Your task to perform on an android device: Open calendar and show me the third week of next month Image 0: 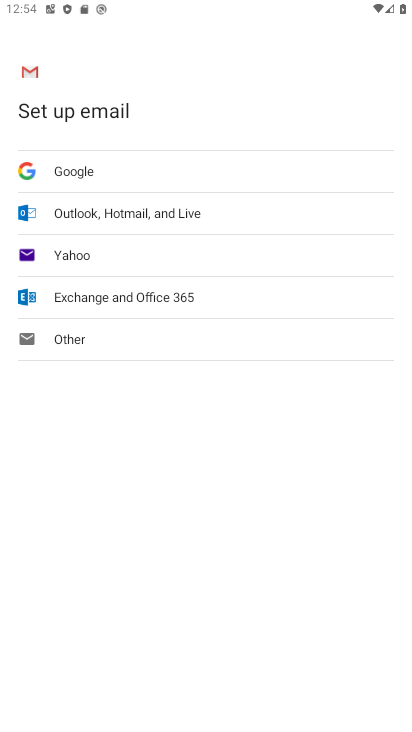
Step 0: press home button
Your task to perform on an android device: Open calendar and show me the third week of next month Image 1: 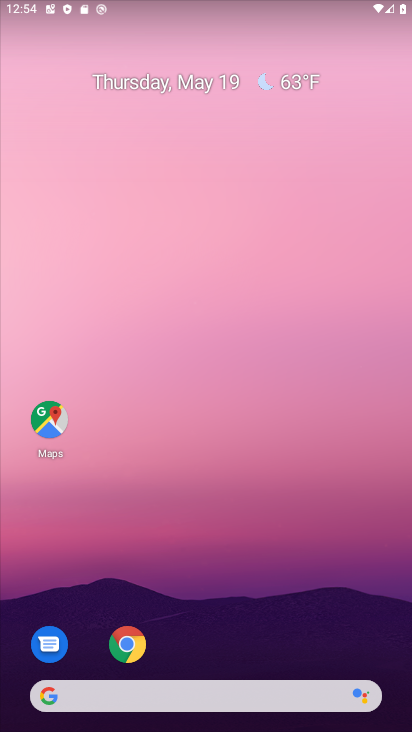
Step 1: drag from (379, 560) to (363, 110)
Your task to perform on an android device: Open calendar and show me the third week of next month Image 2: 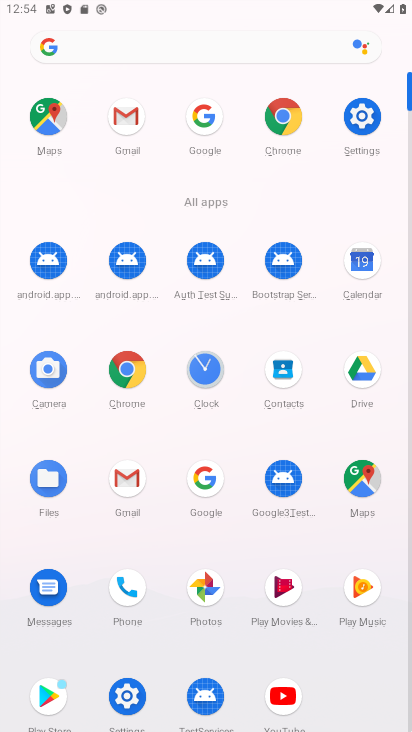
Step 2: click (356, 271)
Your task to perform on an android device: Open calendar and show me the third week of next month Image 3: 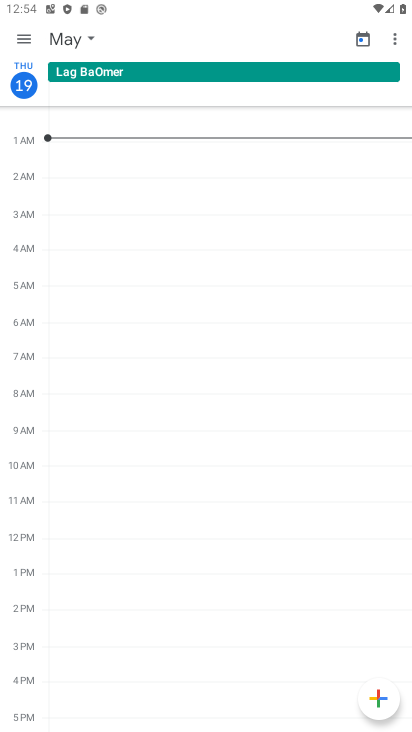
Step 3: click (88, 36)
Your task to perform on an android device: Open calendar and show me the third week of next month Image 4: 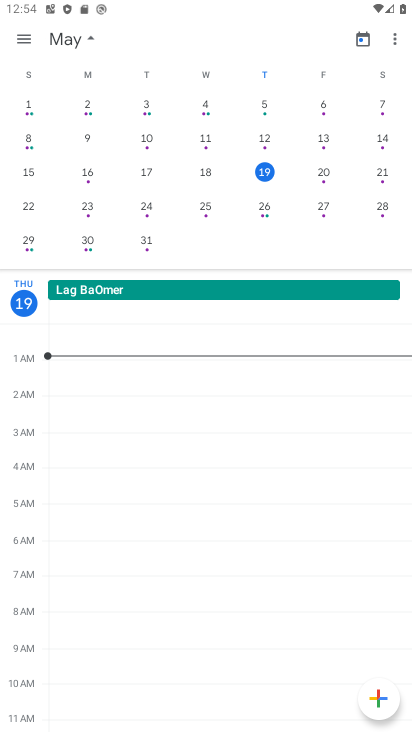
Step 4: drag from (408, 138) to (62, 98)
Your task to perform on an android device: Open calendar and show me the third week of next month Image 5: 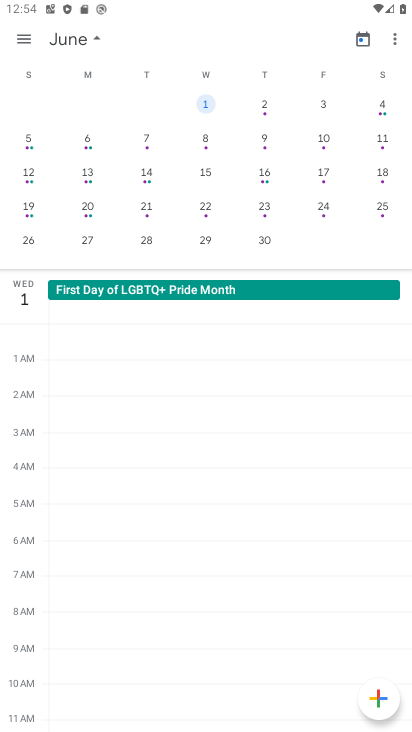
Step 5: click (326, 168)
Your task to perform on an android device: Open calendar and show me the third week of next month Image 6: 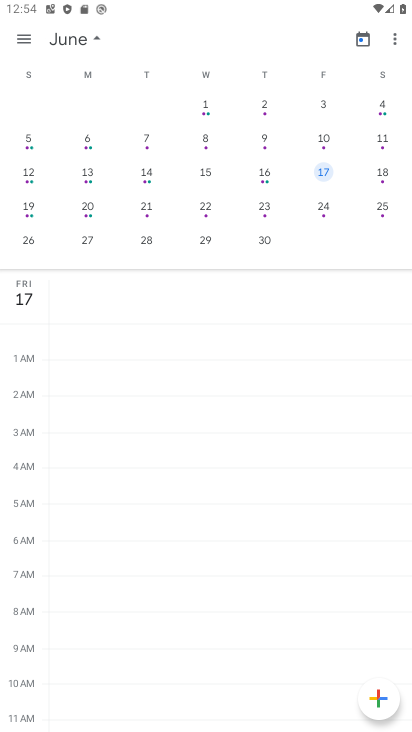
Step 6: click (24, 38)
Your task to perform on an android device: Open calendar and show me the third week of next month Image 7: 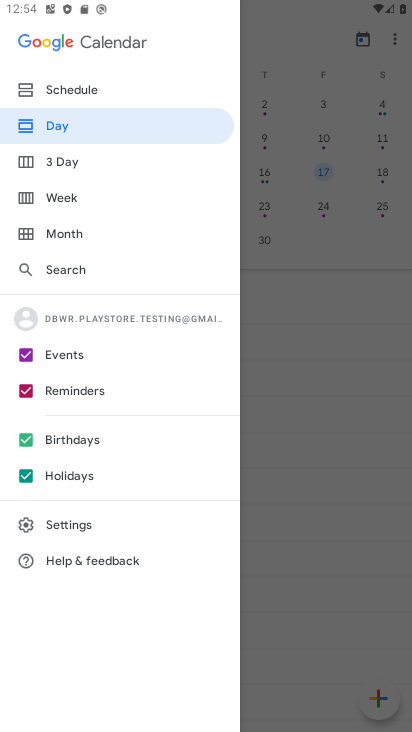
Step 7: click (55, 189)
Your task to perform on an android device: Open calendar and show me the third week of next month Image 8: 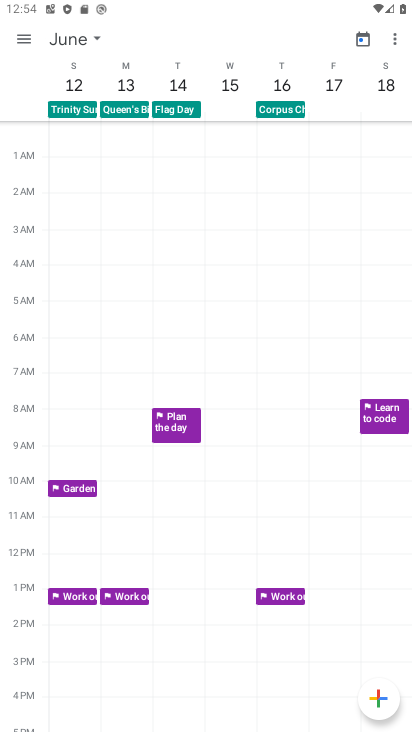
Step 8: task complete